Your task to perform on an android device: Go to accessibility settings Image 0: 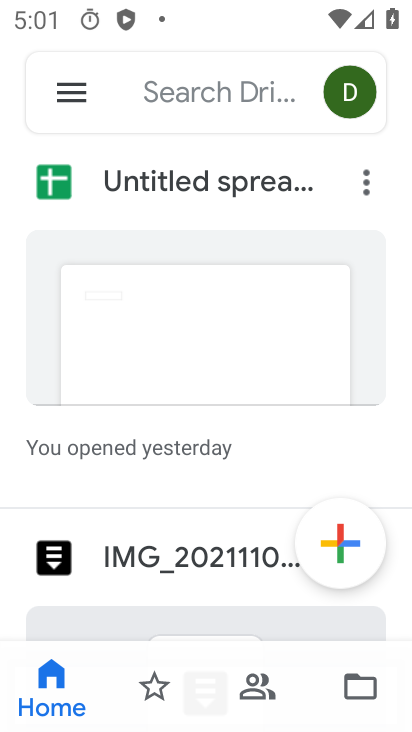
Step 0: press home button
Your task to perform on an android device: Go to accessibility settings Image 1: 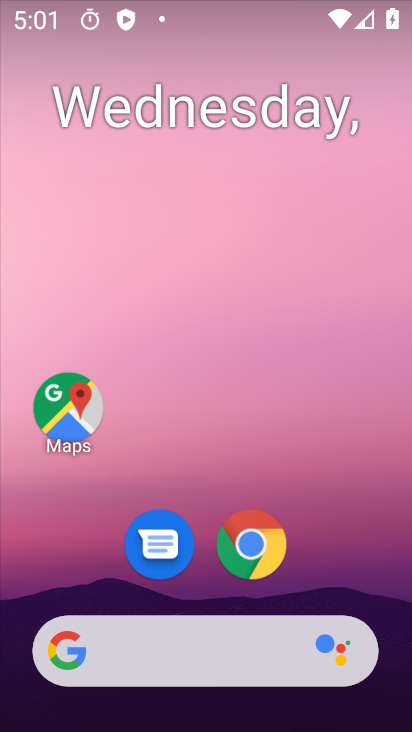
Step 1: drag from (161, 560) to (170, 165)
Your task to perform on an android device: Go to accessibility settings Image 2: 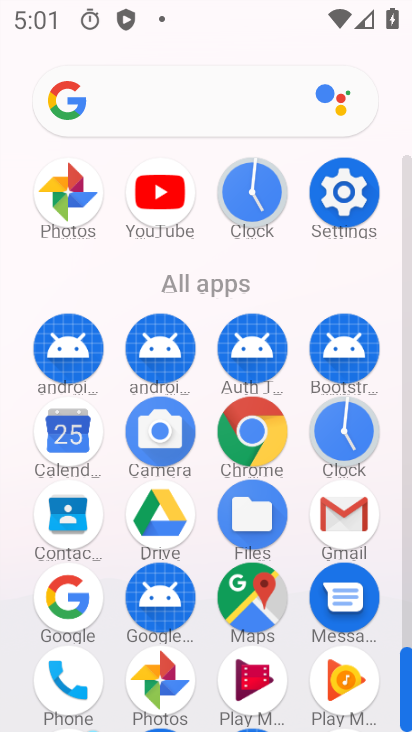
Step 2: click (314, 202)
Your task to perform on an android device: Go to accessibility settings Image 3: 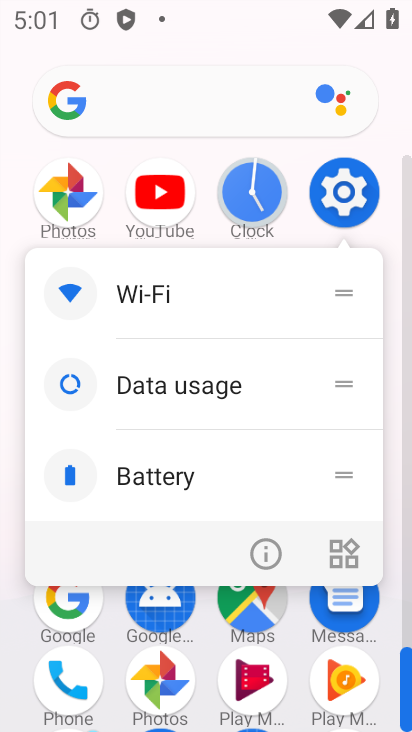
Step 3: click (332, 197)
Your task to perform on an android device: Go to accessibility settings Image 4: 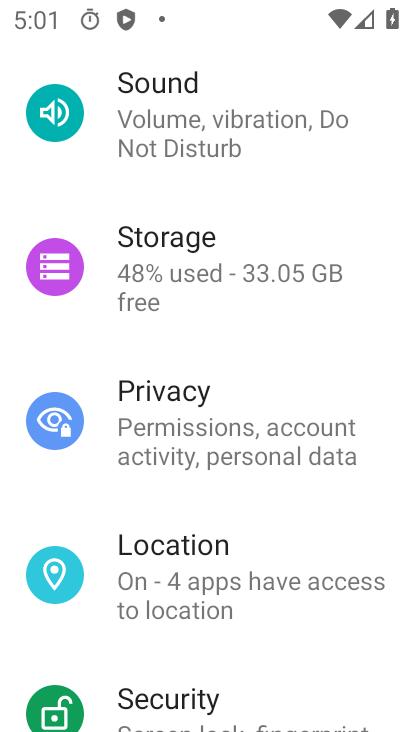
Step 4: drag from (161, 688) to (156, 254)
Your task to perform on an android device: Go to accessibility settings Image 5: 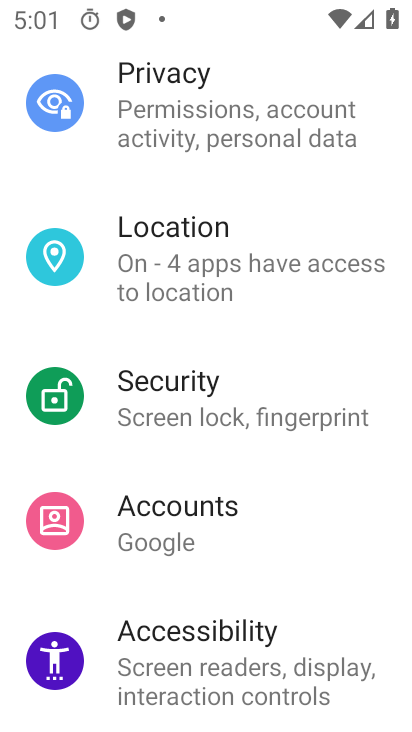
Step 5: click (240, 664)
Your task to perform on an android device: Go to accessibility settings Image 6: 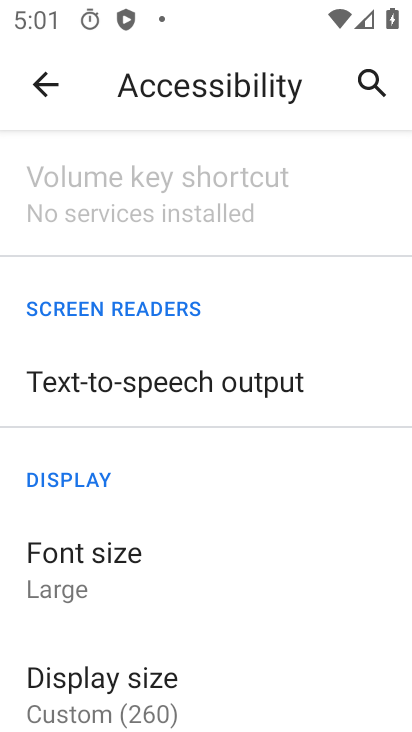
Step 6: task complete